Your task to perform on an android device: change timer sound Image 0: 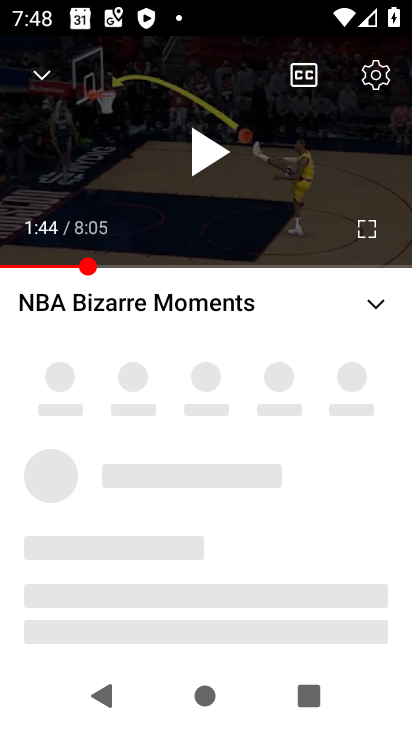
Step 0: press home button
Your task to perform on an android device: change timer sound Image 1: 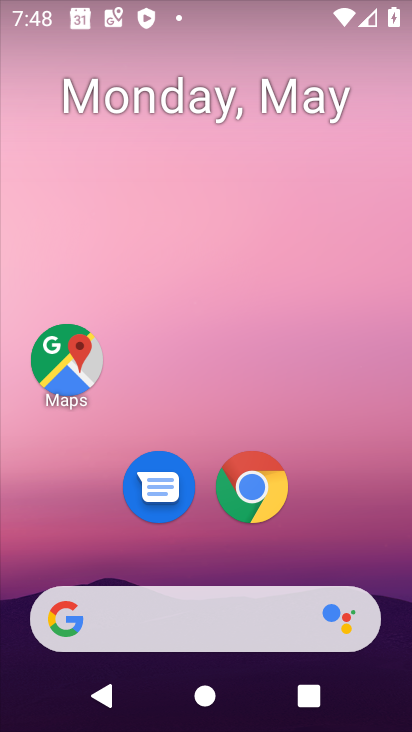
Step 1: drag from (385, 527) to (349, 129)
Your task to perform on an android device: change timer sound Image 2: 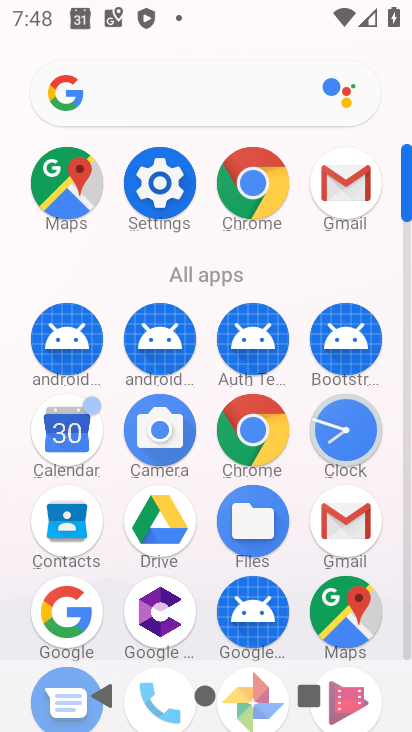
Step 2: click (342, 430)
Your task to perform on an android device: change timer sound Image 3: 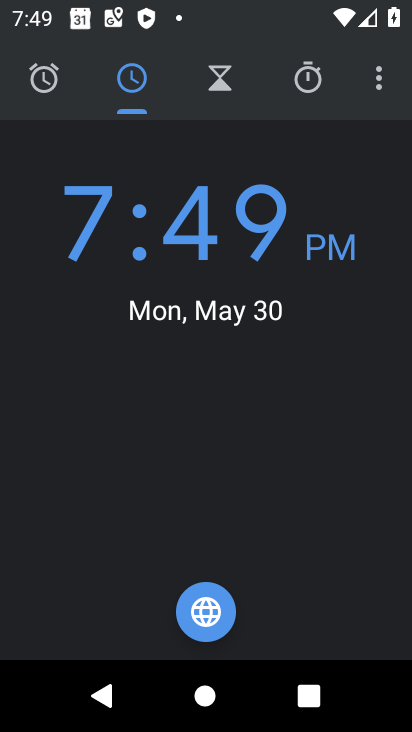
Step 3: click (377, 91)
Your task to perform on an android device: change timer sound Image 4: 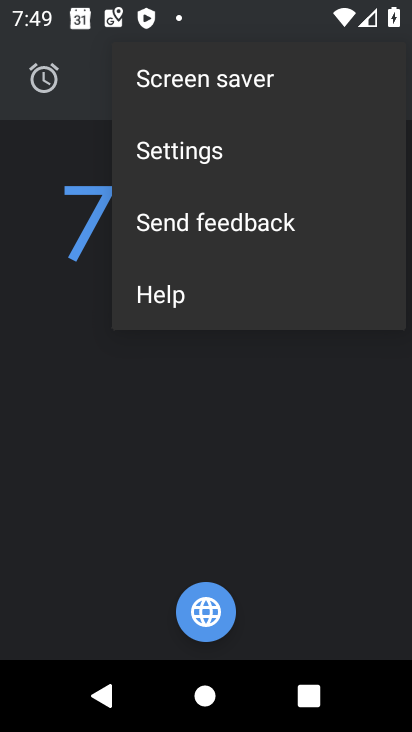
Step 4: click (235, 155)
Your task to perform on an android device: change timer sound Image 5: 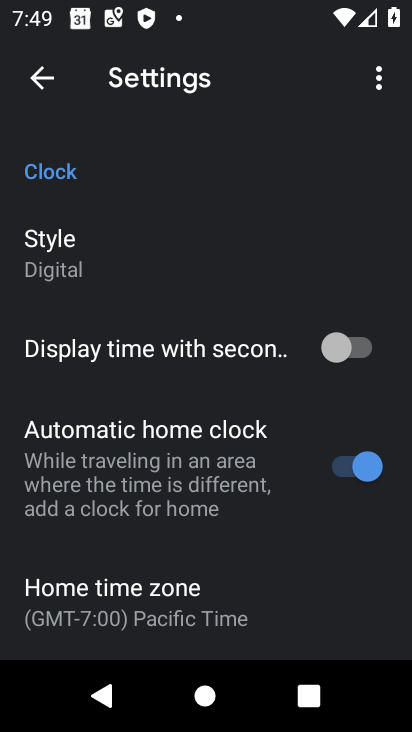
Step 5: drag from (283, 478) to (303, 365)
Your task to perform on an android device: change timer sound Image 6: 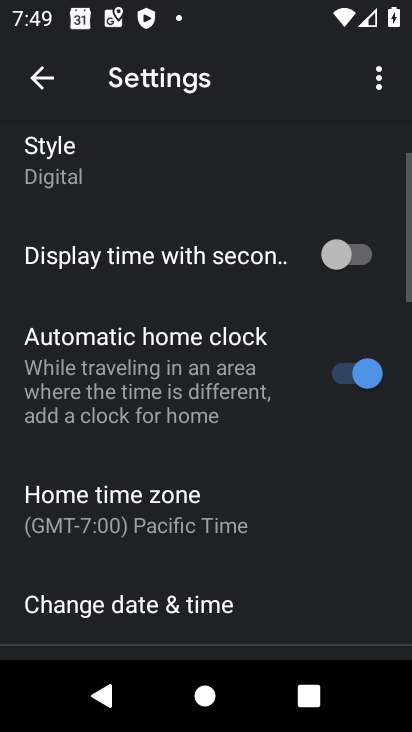
Step 6: drag from (304, 498) to (304, 391)
Your task to perform on an android device: change timer sound Image 7: 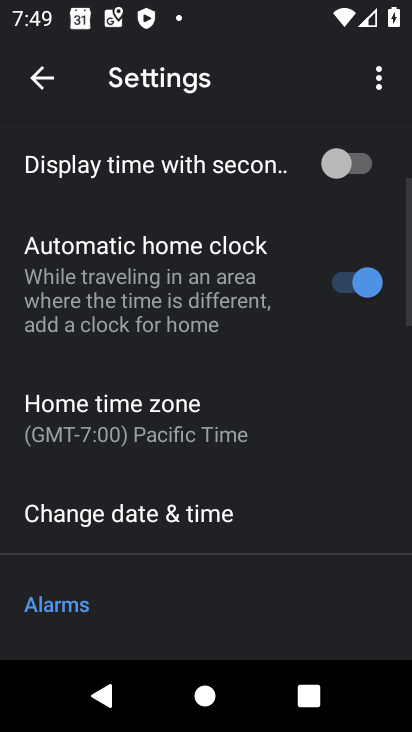
Step 7: drag from (303, 512) to (313, 409)
Your task to perform on an android device: change timer sound Image 8: 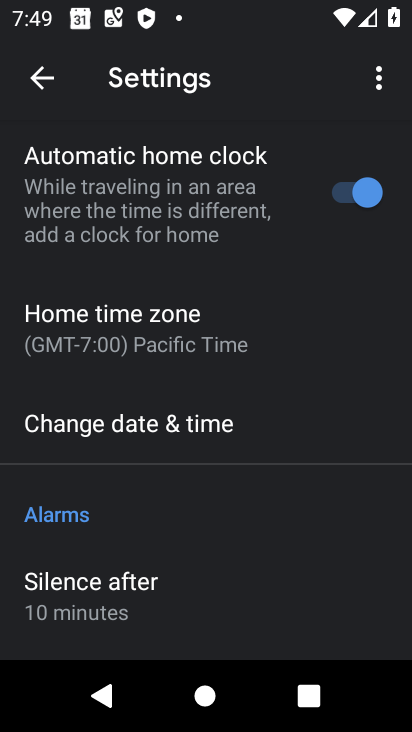
Step 8: drag from (316, 507) to (327, 435)
Your task to perform on an android device: change timer sound Image 9: 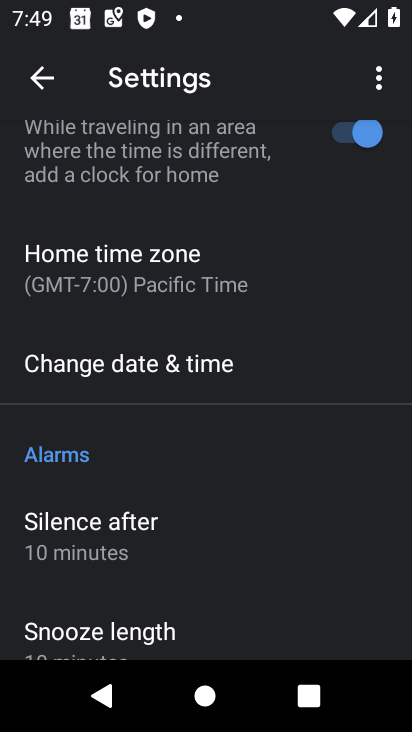
Step 9: drag from (325, 514) to (329, 439)
Your task to perform on an android device: change timer sound Image 10: 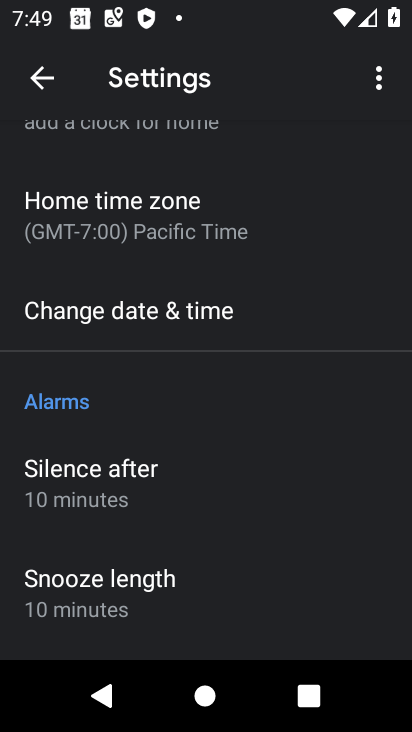
Step 10: drag from (316, 527) to (316, 434)
Your task to perform on an android device: change timer sound Image 11: 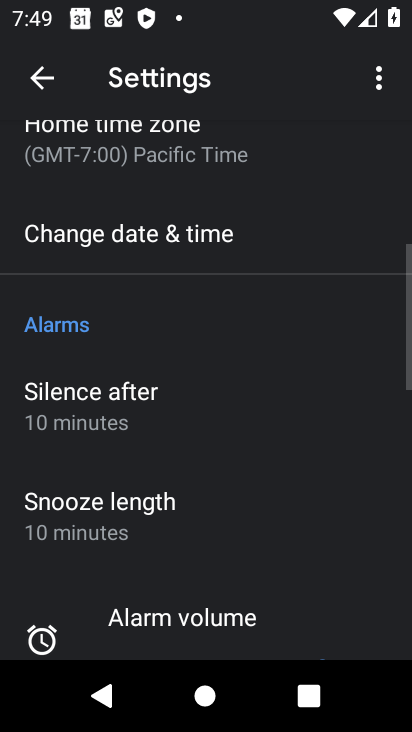
Step 11: drag from (313, 506) to (319, 425)
Your task to perform on an android device: change timer sound Image 12: 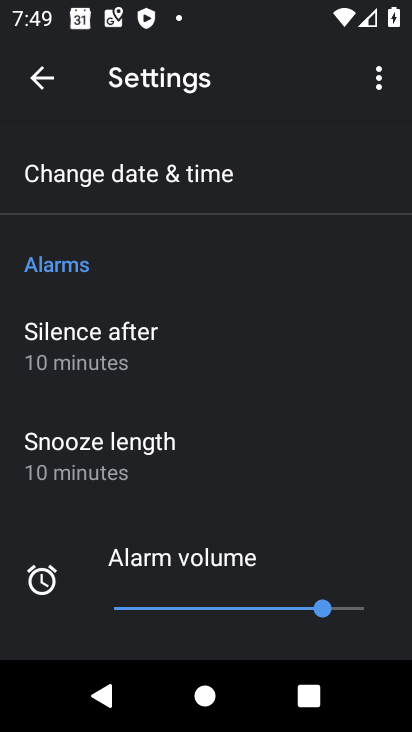
Step 12: drag from (310, 487) to (308, 408)
Your task to perform on an android device: change timer sound Image 13: 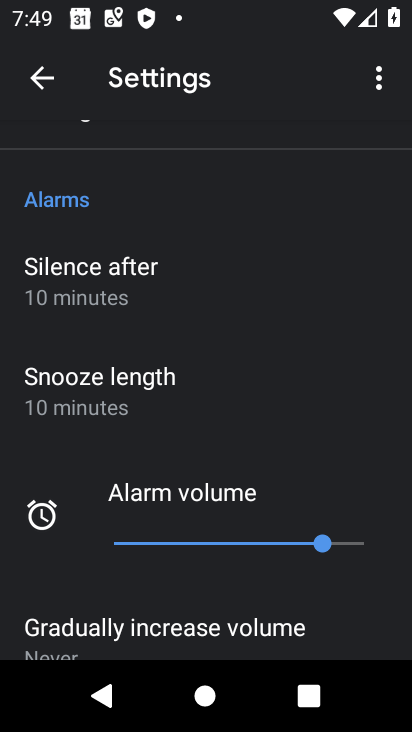
Step 13: drag from (308, 550) to (318, 455)
Your task to perform on an android device: change timer sound Image 14: 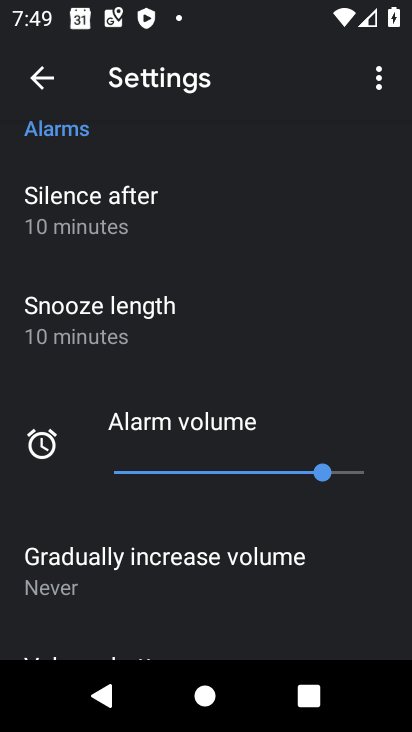
Step 14: drag from (324, 557) to (324, 474)
Your task to perform on an android device: change timer sound Image 15: 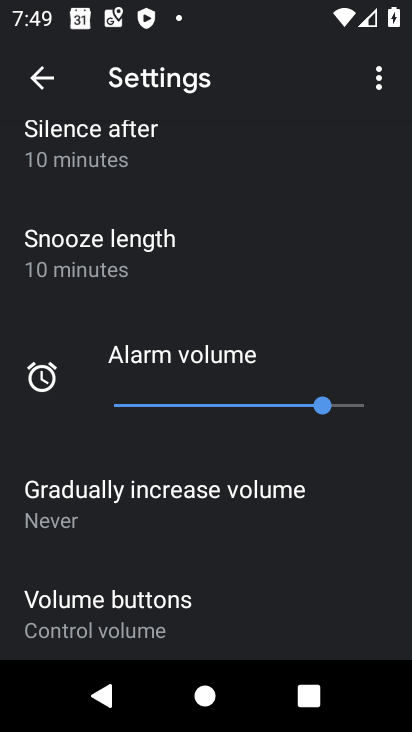
Step 15: drag from (324, 571) to (322, 476)
Your task to perform on an android device: change timer sound Image 16: 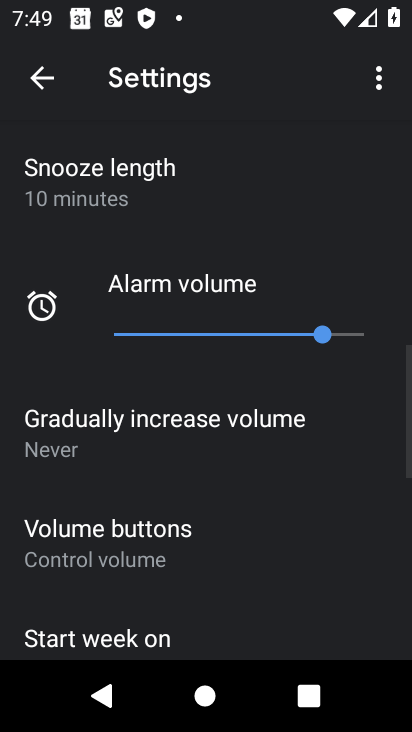
Step 16: drag from (314, 565) to (313, 462)
Your task to perform on an android device: change timer sound Image 17: 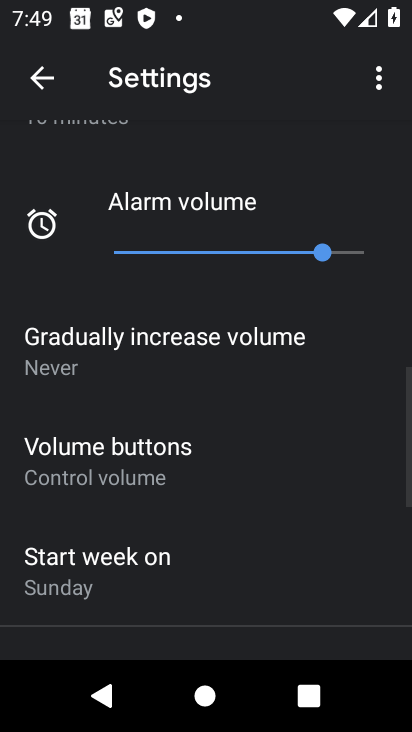
Step 17: drag from (314, 582) to (314, 476)
Your task to perform on an android device: change timer sound Image 18: 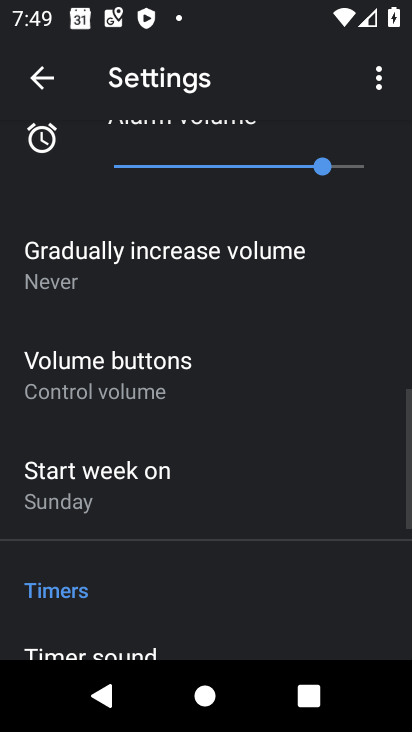
Step 18: drag from (296, 571) to (301, 348)
Your task to perform on an android device: change timer sound Image 19: 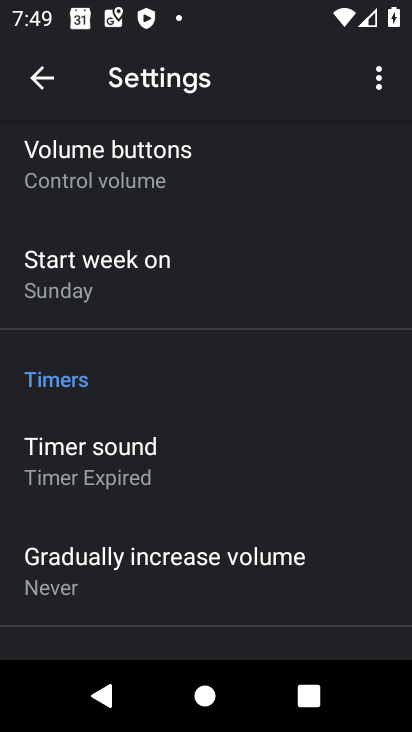
Step 19: drag from (308, 607) to (288, 335)
Your task to perform on an android device: change timer sound Image 20: 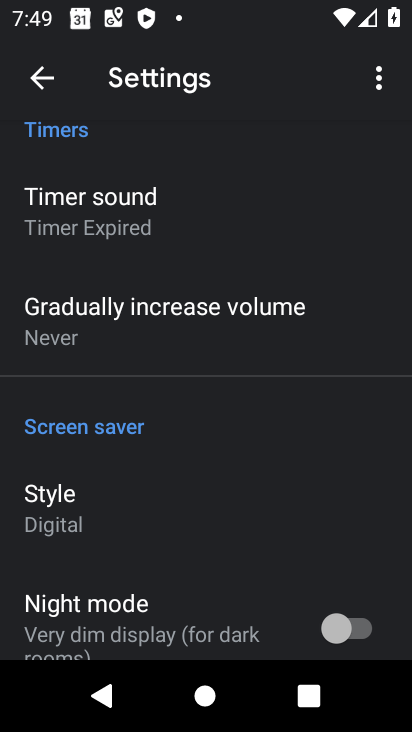
Step 20: click (159, 233)
Your task to perform on an android device: change timer sound Image 21: 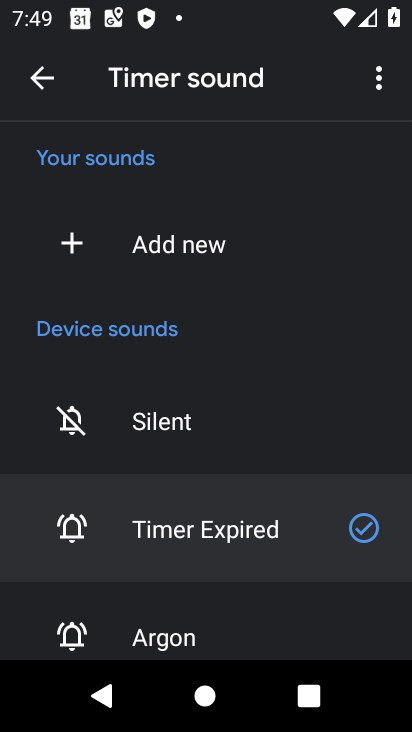
Step 21: click (182, 428)
Your task to perform on an android device: change timer sound Image 22: 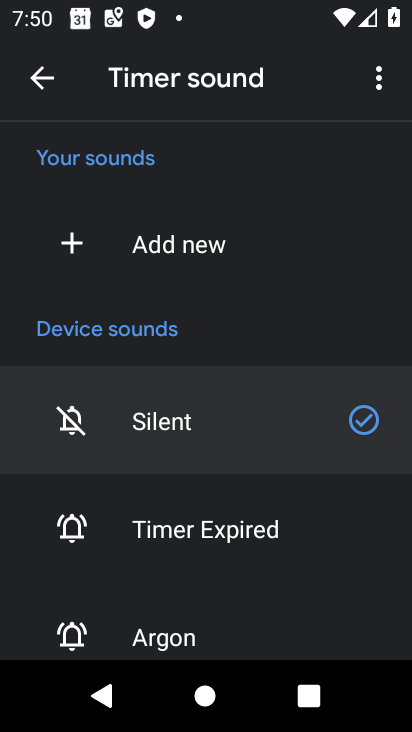
Step 22: task complete